Your task to perform on an android device: Is it going to rain tomorrow? Image 0: 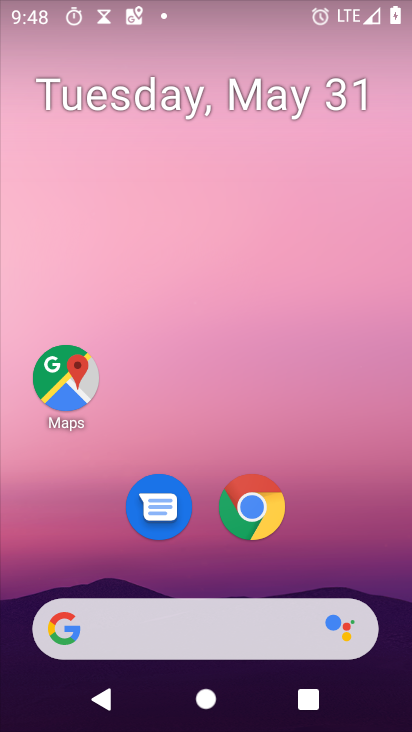
Step 0: click (153, 649)
Your task to perform on an android device: Is it going to rain tomorrow? Image 1: 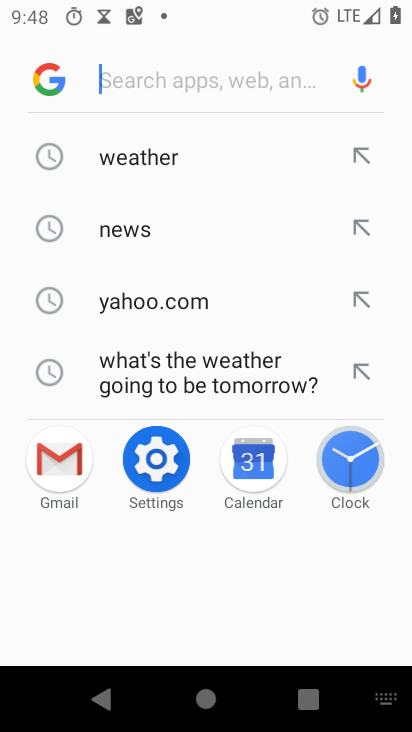
Step 1: click (150, 170)
Your task to perform on an android device: Is it going to rain tomorrow? Image 2: 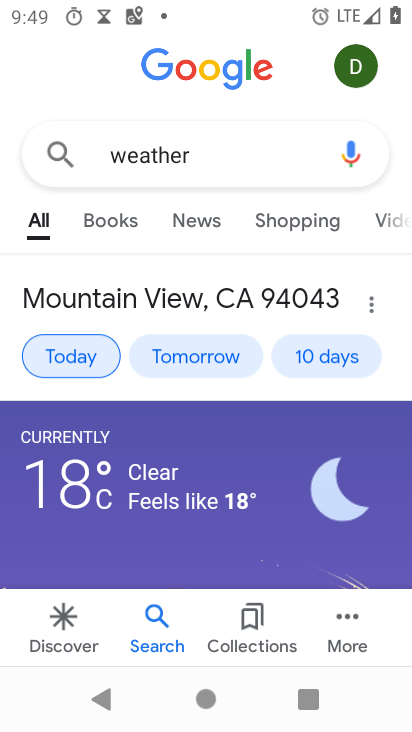
Step 2: task complete